Your task to perform on an android device: Add "sony triple a" to the cart on amazon.com, then select checkout. Image 0: 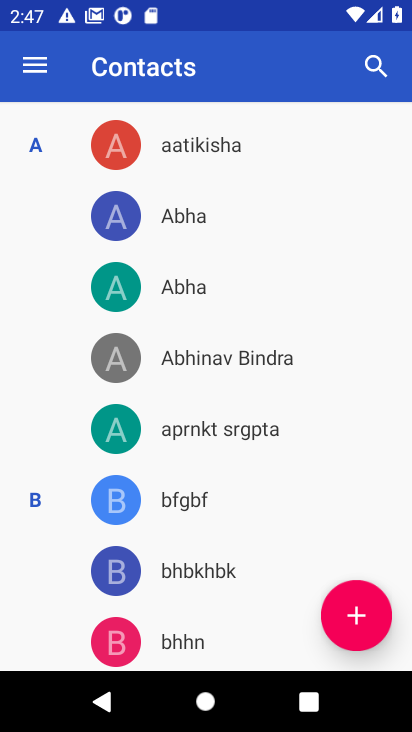
Step 0: press home button
Your task to perform on an android device: Add "sony triple a" to the cart on amazon.com, then select checkout. Image 1: 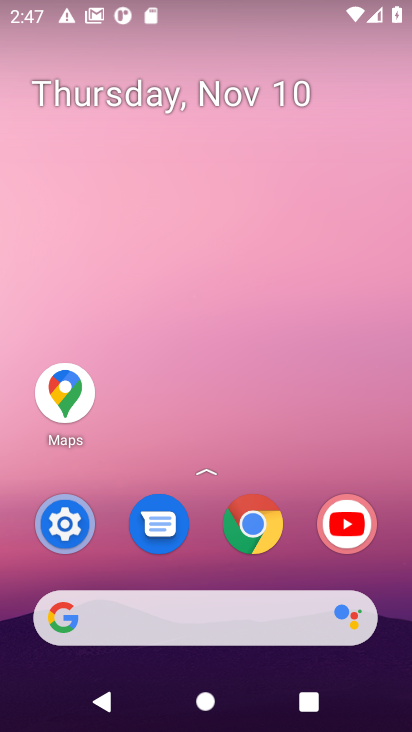
Step 1: click (251, 528)
Your task to perform on an android device: Add "sony triple a" to the cart on amazon.com, then select checkout. Image 2: 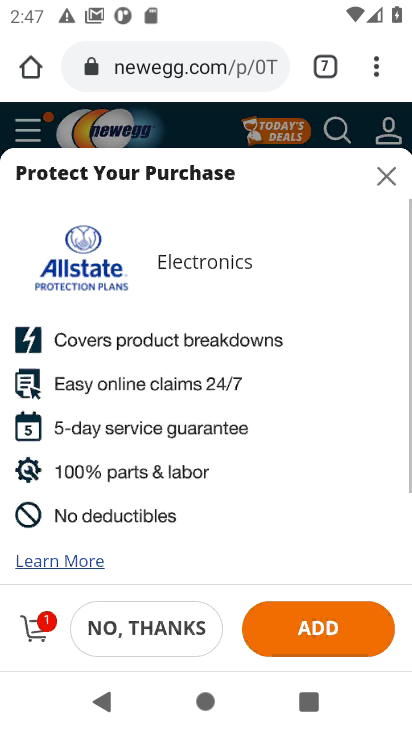
Step 2: click (387, 178)
Your task to perform on an android device: Add "sony triple a" to the cart on amazon.com, then select checkout. Image 3: 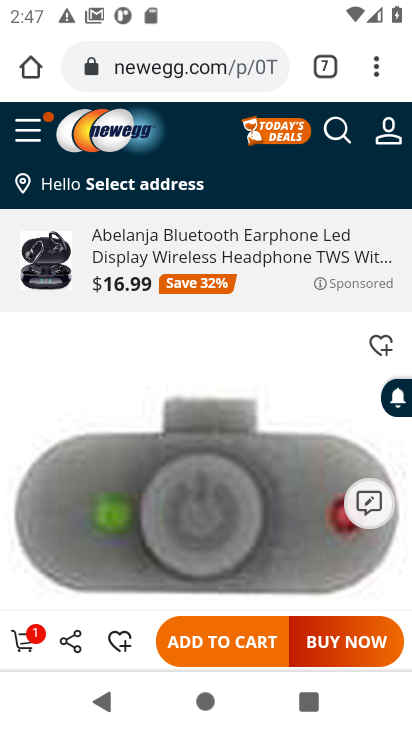
Step 3: click (324, 67)
Your task to perform on an android device: Add "sony triple a" to the cart on amazon.com, then select checkout. Image 4: 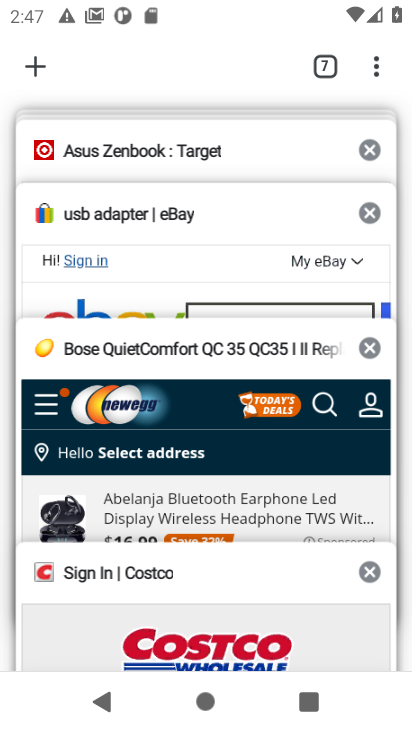
Step 4: drag from (218, 107) to (211, 294)
Your task to perform on an android device: Add "sony triple a" to the cart on amazon.com, then select checkout. Image 5: 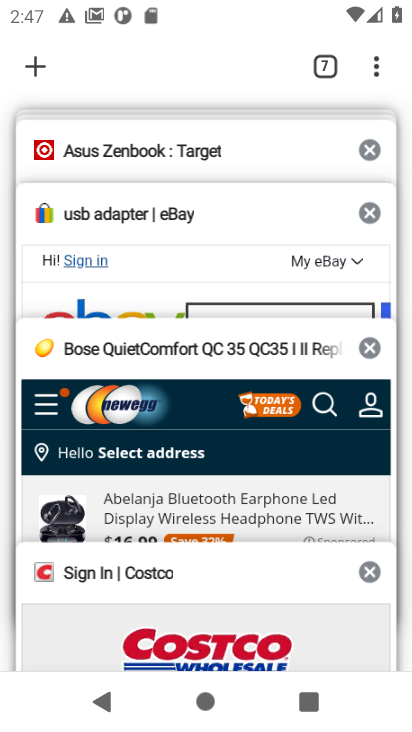
Step 5: drag from (268, 130) to (248, 227)
Your task to perform on an android device: Add "sony triple a" to the cart on amazon.com, then select checkout. Image 6: 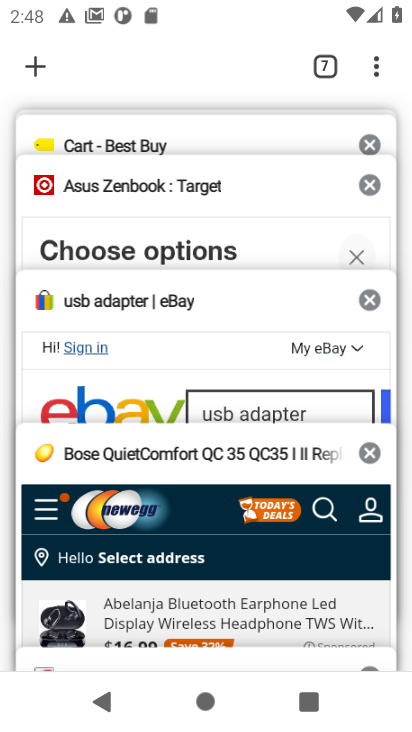
Step 6: drag from (282, 126) to (290, 404)
Your task to perform on an android device: Add "sony triple a" to the cart on amazon.com, then select checkout. Image 7: 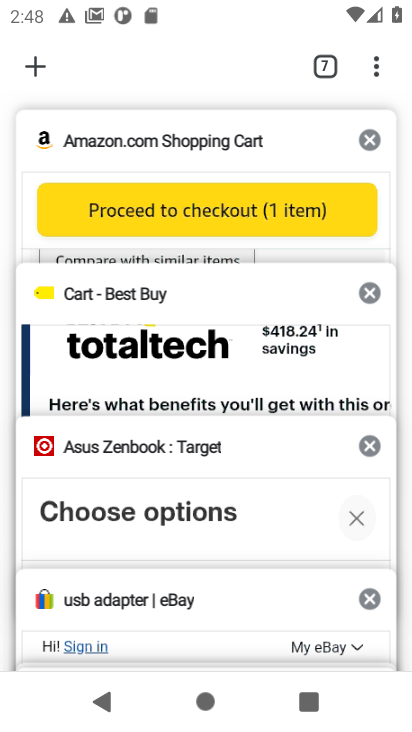
Step 7: click (260, 177)
Your task to perform on an android device: Add "sony triple a" to the cart on amazon.com, then select checkout. Image 8: 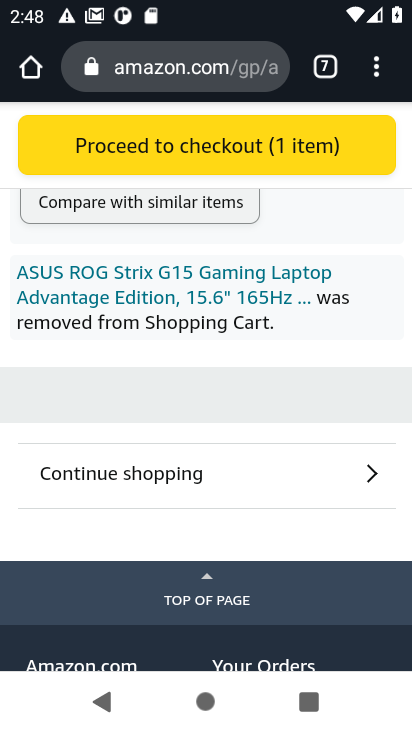
Step 8: drag from (384, 216) to (282, 689)
Your task to perform on an android device: Add "sony triple a" to the cart on amazon.com, then select checkout. Image 9: 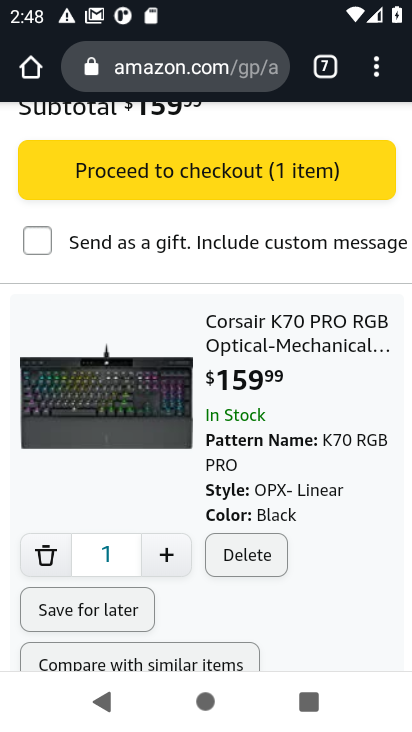
Step 9: click (326, 270)
Your task to perform on an android device: Add "sony triple a" to the cart on amazon.com, then select checkout. Image 10: 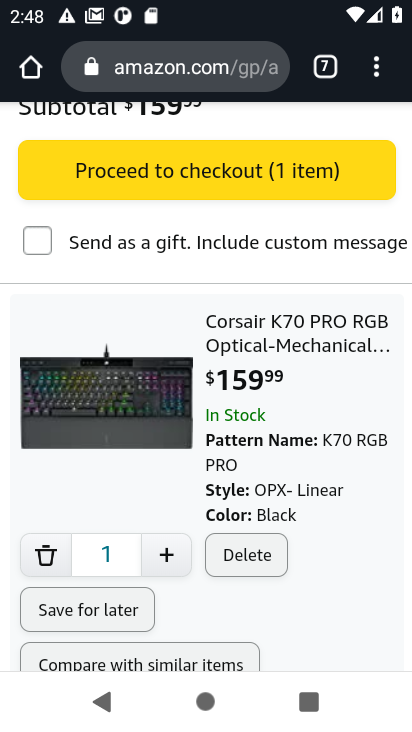
Step 10: drag from (326, 270) to (234, 569)
Your task to perform on an android device: Add "sony triple a" to the cart on amazon.com, then select checkout. Image 11: 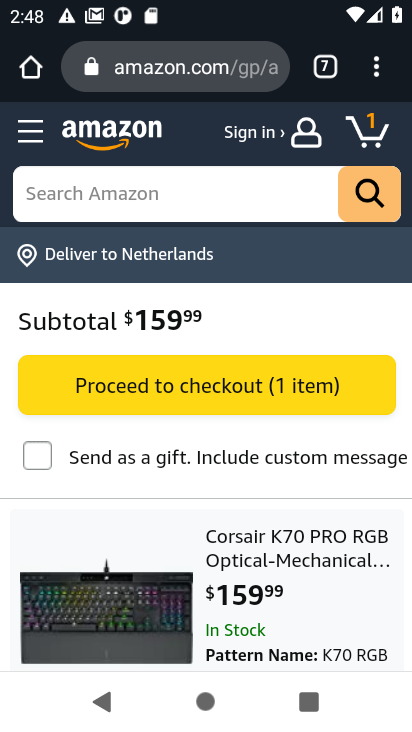
Step 11: click (176, 199)
Your task to perform on an android device: Add "sony triple a" to the cart on amazon.com, then select checkout. Image 12: 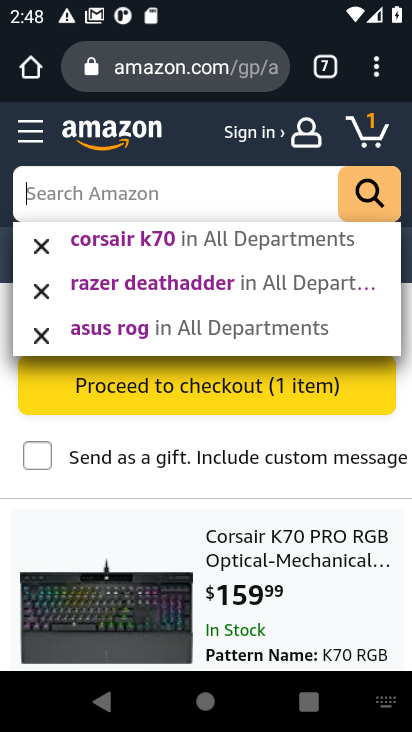
Step 12: type "sony triple a"
Your task to perform on an android device: Add "sony triple a" to the cart on amazon.com, then select checkout. Image 13: 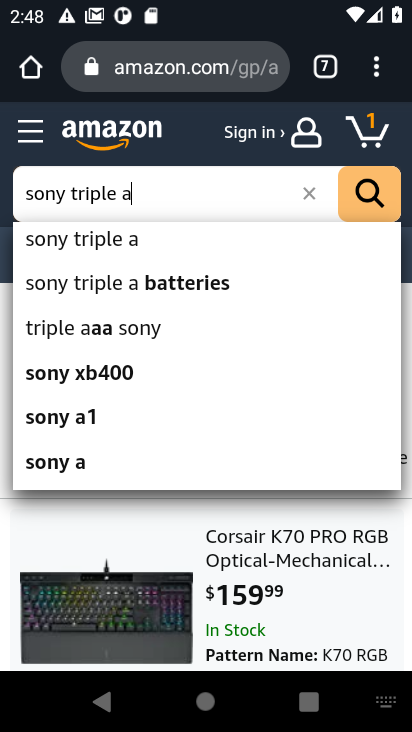
Step 13: click (129, 285)
Your task to perform on an android device: Add "sony triple a" to the cart on amazon.com, then select checkout. Image 14: 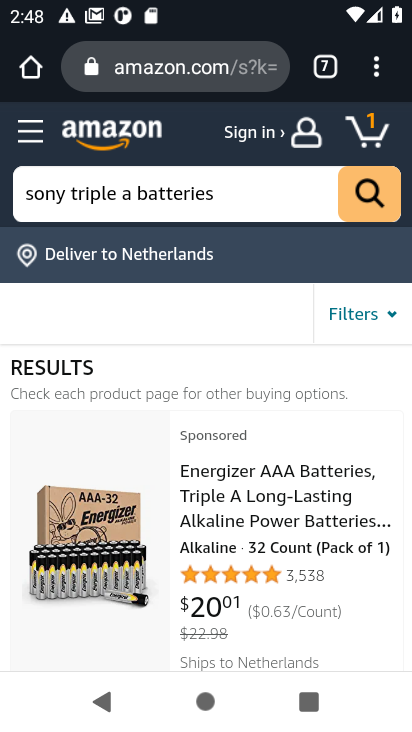
Step 14: drag from (360, 639) to (355, 223)
Your task to perform on an android device: Add "sony triple a" to the cart on amazon.com, then select checkout. Image 15: 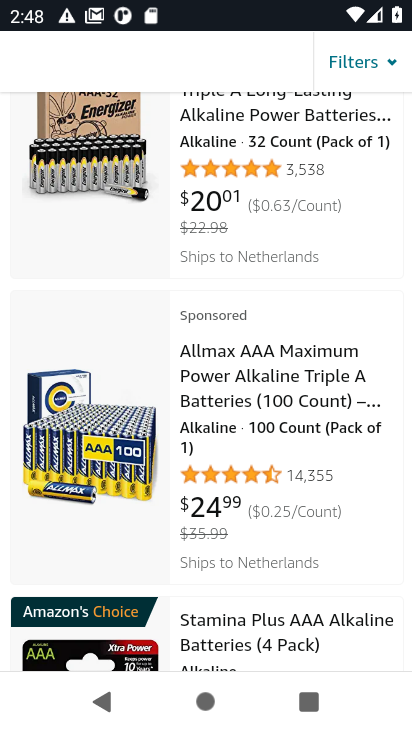
Step 15: click (142, 658)
Your task to perform on an android device: Add "sony triple a" to the cart on amazon.com, then select checkout. Image 16: 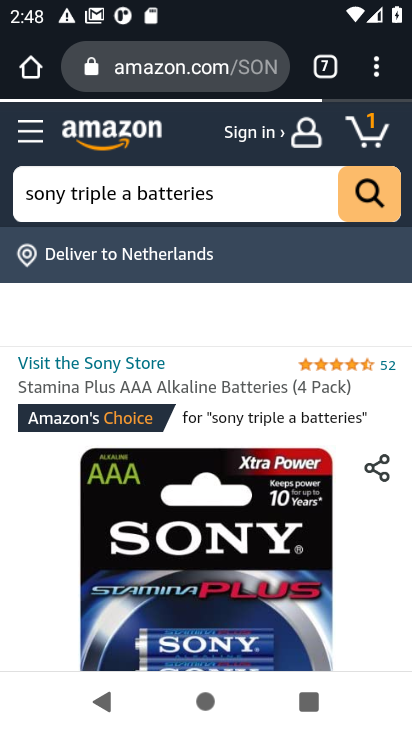
Step 16: drag from (376, 620) to (374, 245)
Your task to perform on an android device: Add "sony triple a" to the cart on amazon.com, then select checkout. Image 17: 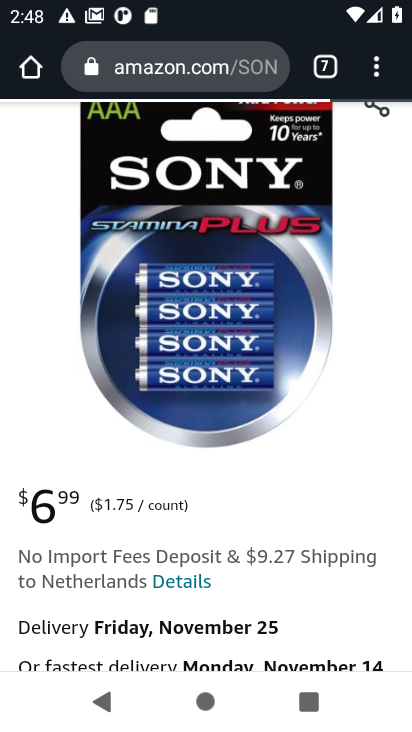
Step 17: drag from (231, 513) to (322, 1)
Your task to perform on an android device: Add "sony triple a" to the cart on amazon.com, then select checkout. Image 18: 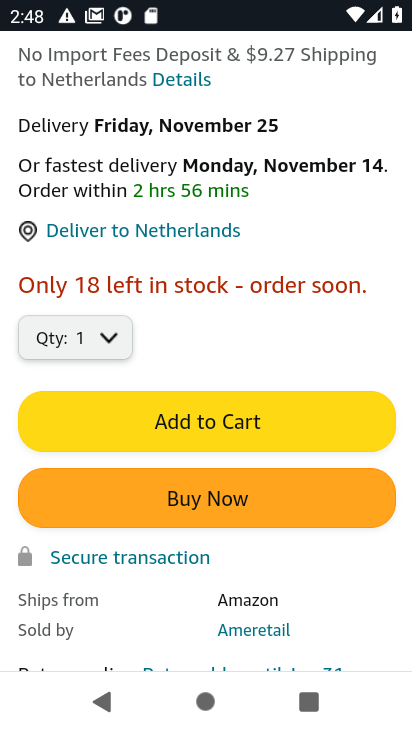
Step 18: click (173, 431)
Your task to perform on an android device: Add "sony triple a" to the cart on amazon.com, then select checkout. Image 19: 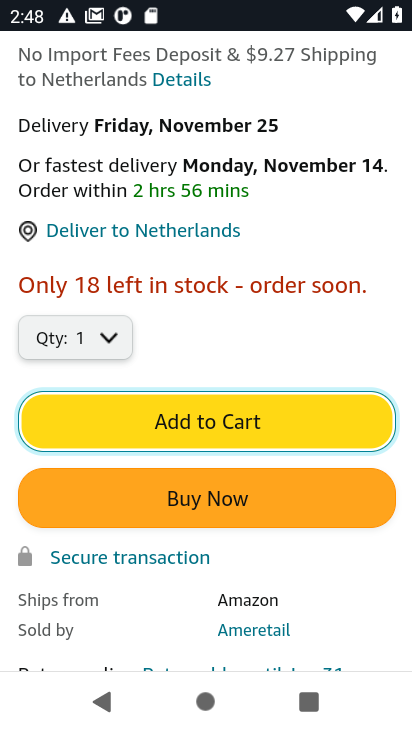
Step 19: click (173, 431)
Your task to perform on an android device: Add "sony triple a" to the cart on amazon.com, then select checkout. Image 20: 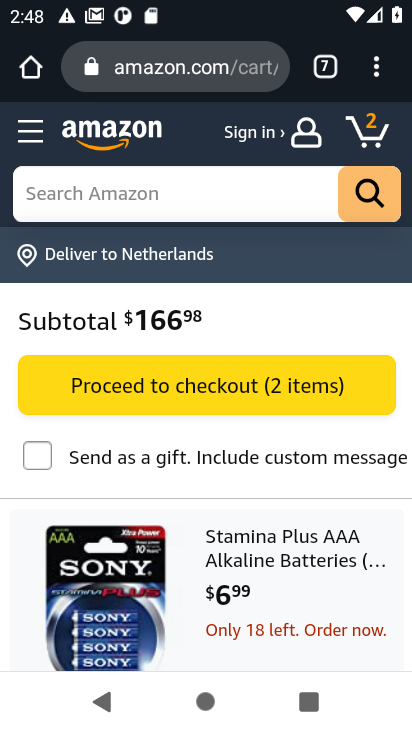
Step 20: click (203, 371)
Your task to perform on an android device: Add "sony triple a" to the cart on amazon.com, then select checkout. Image 21: 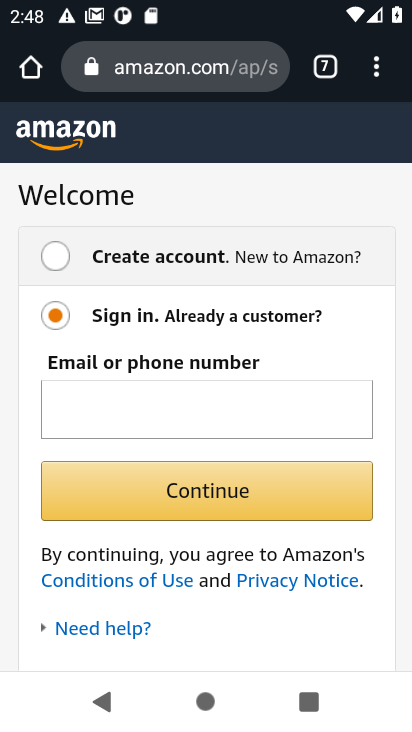
Step 21: task complete